Your task to perform on an android device: change keyboard looks Image 0: 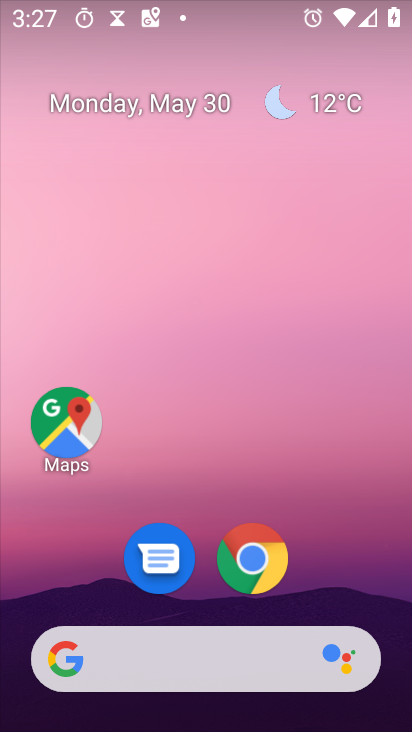
Step 0: drag from (240, 516) to (313, 15)
Your task to perform on an android device: change keyboard looks Image 1: 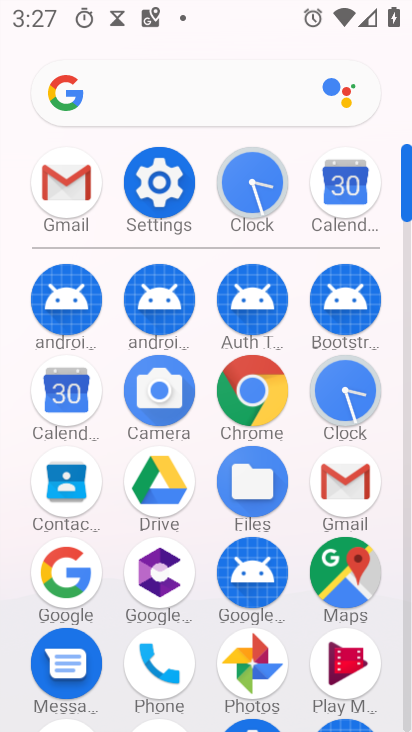
Step 1: click (153, 179)
Your task to perform on an android device: change keyboard looks Image 2: 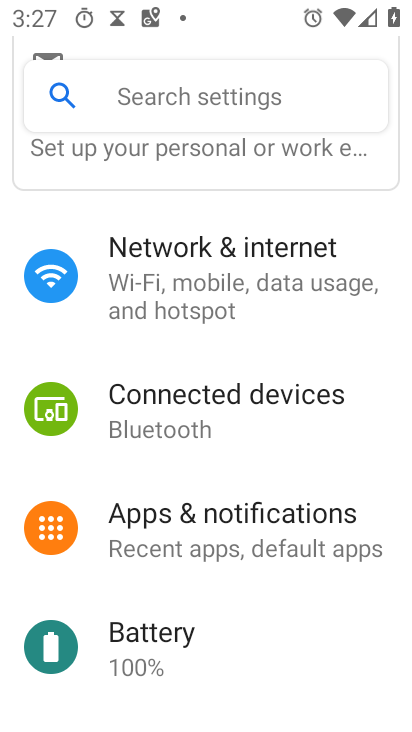
Step 2: drag from (157, 649) to (234, 213)
Your task to perform on an android device: change keyboard looks Image 3: 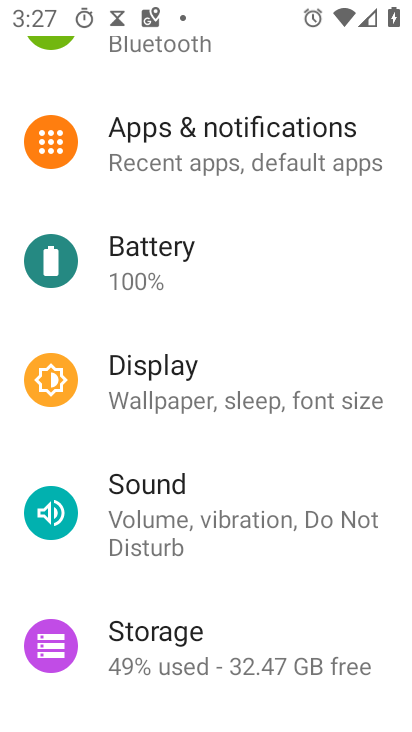
Step 3: drag from (196, 647) to (286, 48)
Your task to perform on an android device: change keyboard looks Image 4: 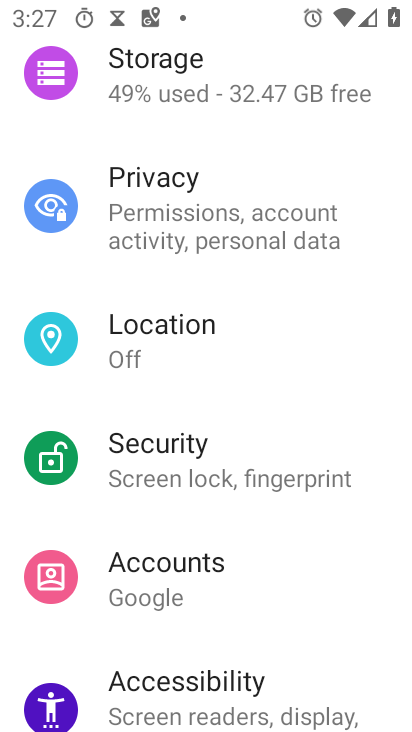
Step 4: drag from (168, 612) to (313, 8)
Your task to perform on an android device: change keyboard looks Image 5: 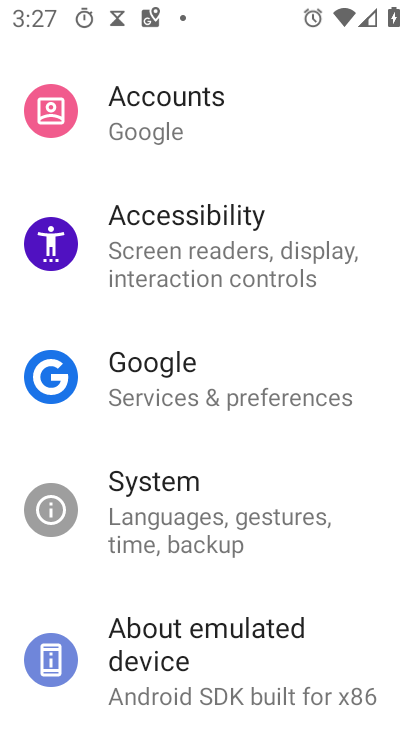
Step 5: click (142, 518)
Your task to perform on an android device: change keyboard looks Image 6: 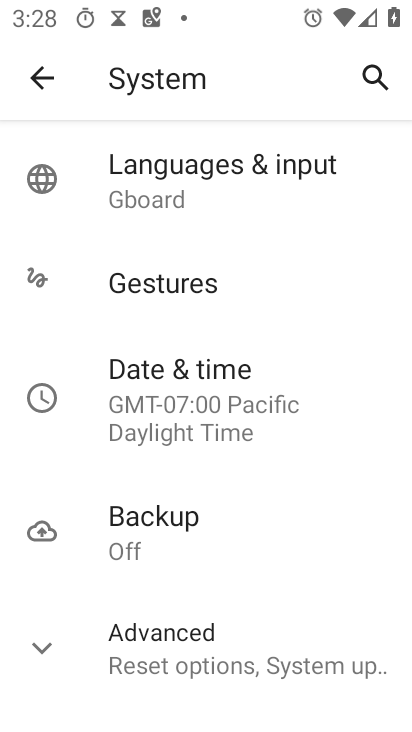
Step 6: drag from (143, 653) to (264, 115)
Your task to perform on an android device: change keyboard looks Image 7: 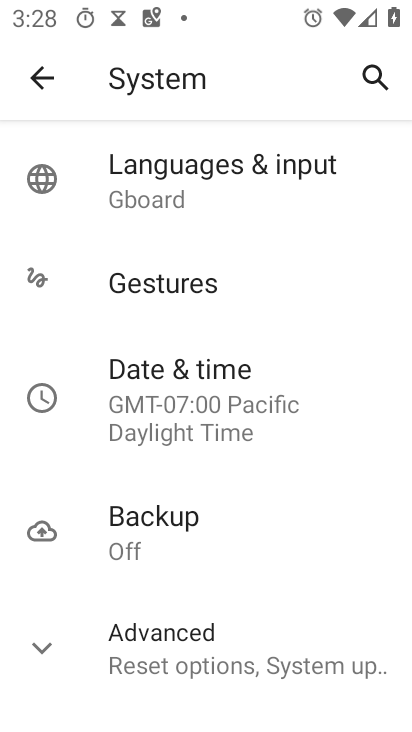
Step 7: click (204, 190)
Your task to perform on an android device: change keyboard looks Image 8: 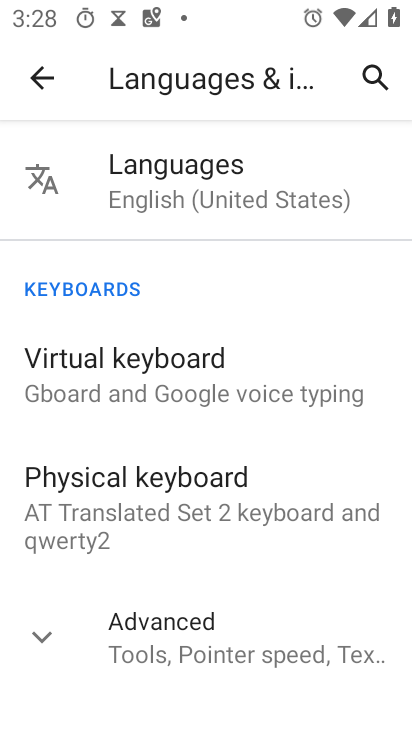
Step 8: click (105, 362)
Your task to perform on an android device: change keyboard looks Image 9: 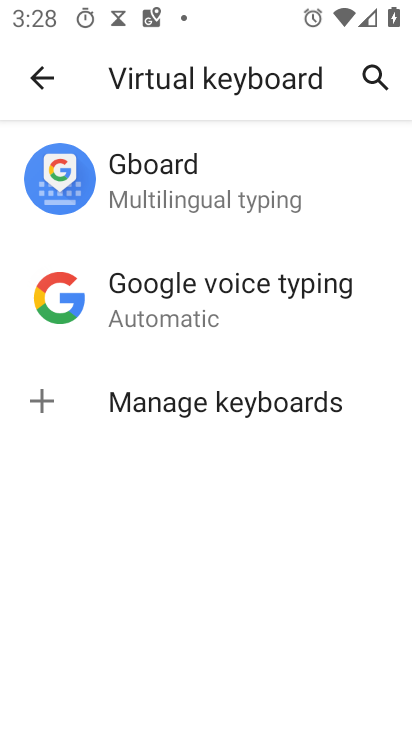
Step 9: click (154, 152)
Your task to perform on an android device: change keyboard looks Image 10: 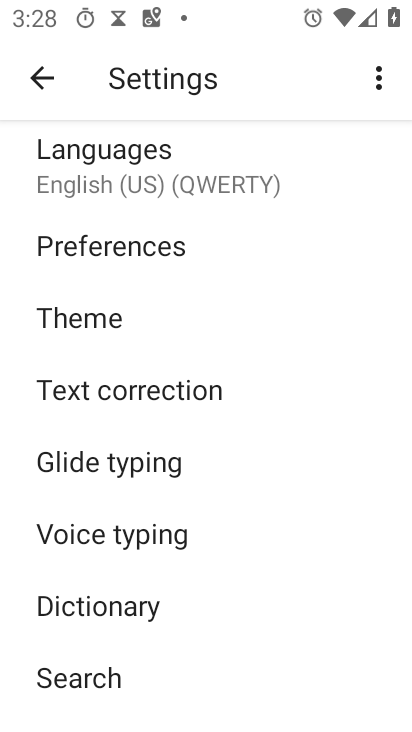
Step 10: click (76, 315)
Your task to perform on an android device: change keyboard looks Image 11: 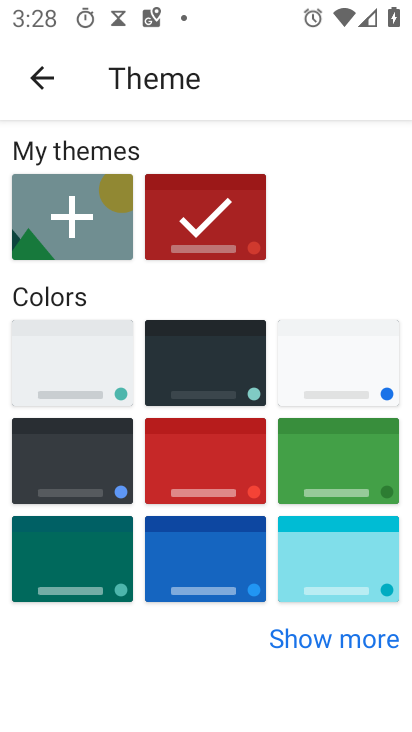
Step 11: click (200, 476)
Your task to perform on an android device: change keyboard looks Image 12: 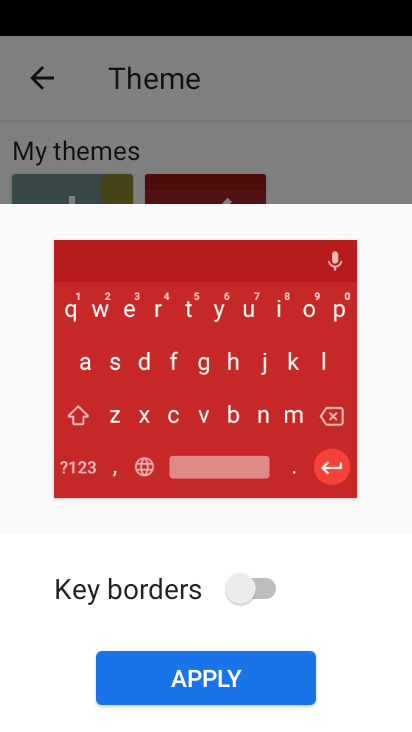
Step 12: click (190, 690)
Your task to perform on an android device: change keyboard looks Image 13: 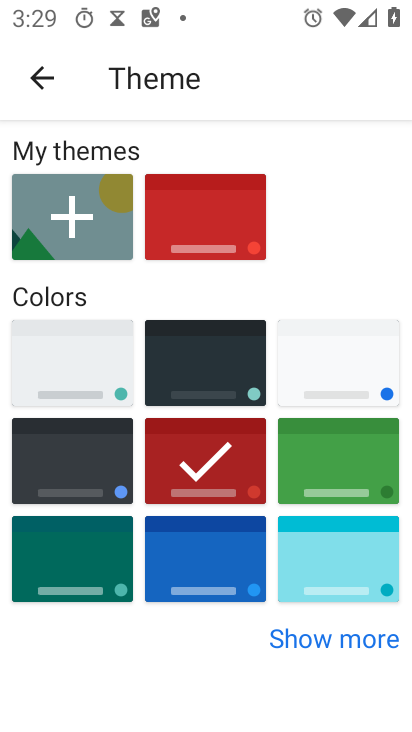
Step 13: task complete